Your task to perform on an android device: turn off sleep mode Image 0: 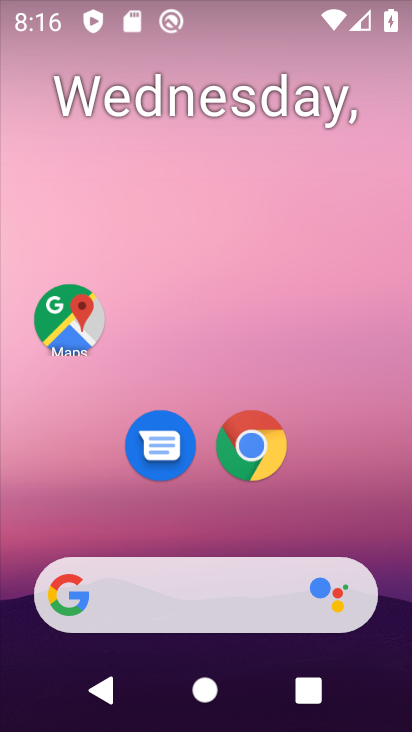
Step 0: drag from (238, 713) to (250, 33)
Your task to perform on an android device: turn off sleep mode Image 1: 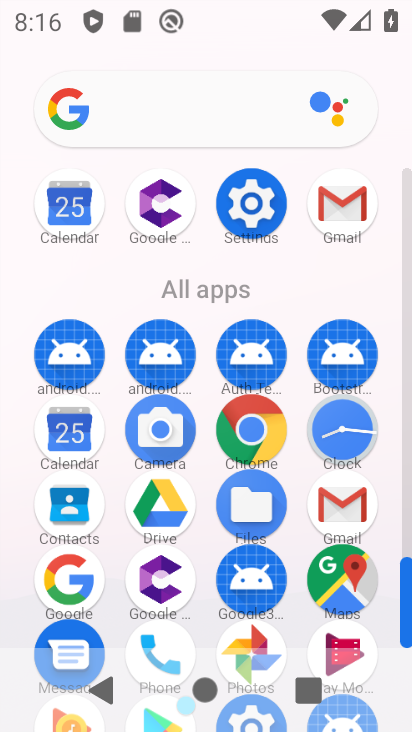
Step 1: click (234, 197)
Your task to perform on an android device: turn off sleep mode Image 2: 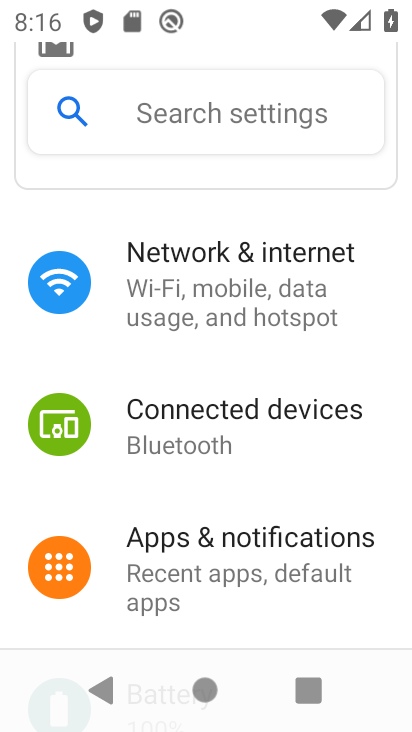
Step 2: drag from (235, 619) to (229, 122)
Your task to perform on an android device: turn off sleep mode Image 3: 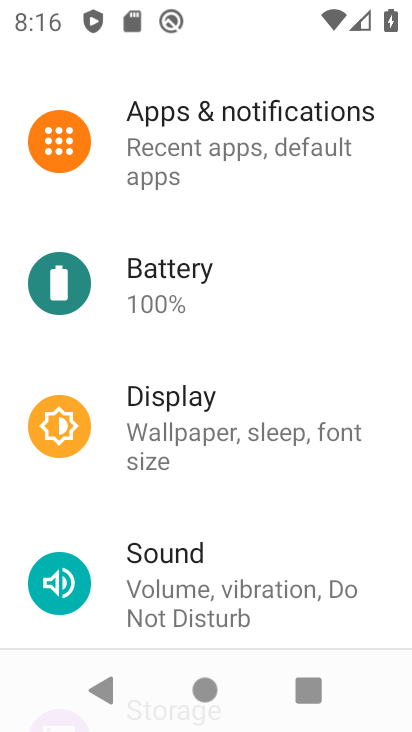
Step 3: drag from (228, 593) to (212, 155)
Your task to perform on an android device: turn off sleep mode Image 4: 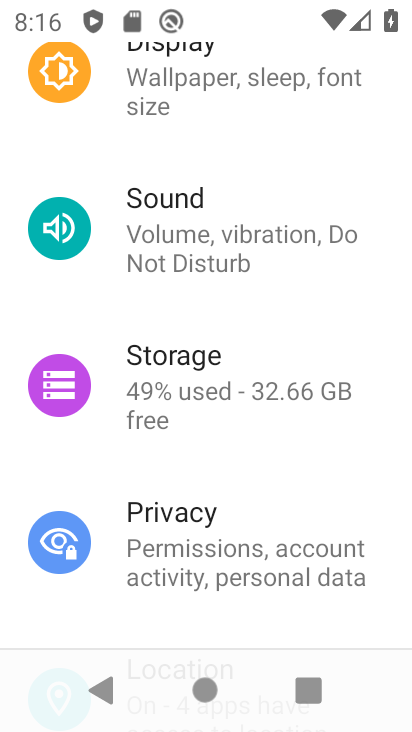
Step 4: drag from (223, 578) to (219, 146)
Your task to perform on an android device: turn off sleep mode Image 5: 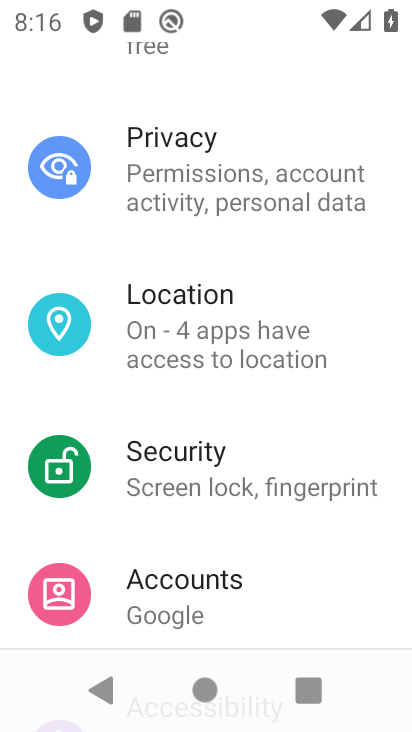
Step 5: drag from (215, 628) to (218, 129)
Your task to perform on an android device: turn off sleep mode Image 6: 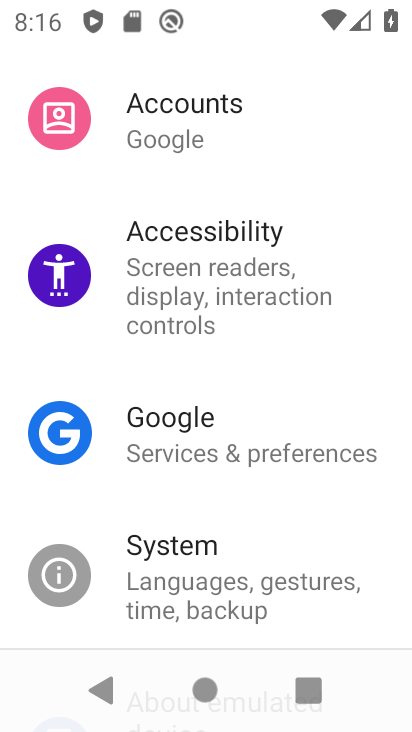
Step 6: drag from (209, 617) to (200, 169)
Your task to perform on an android device: turn off sleep mode Image 7: 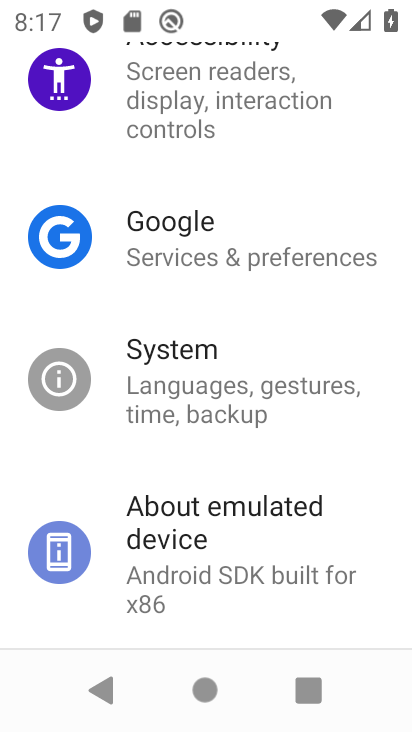
Step 7: drag from (236, 99) to (209, 514)
Your task to perform on an android device: turn off sleep mode Image 8: 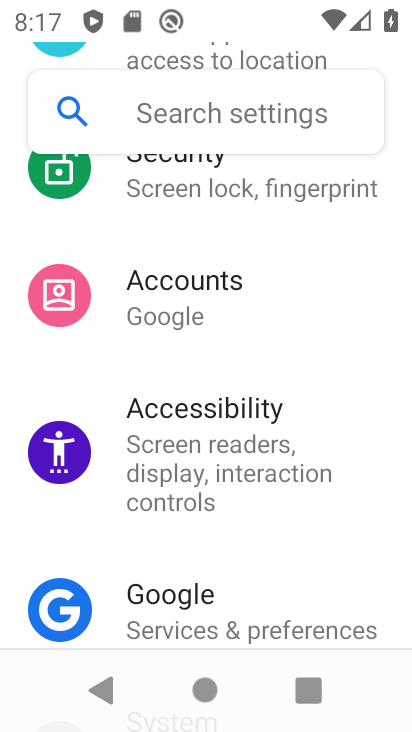
Step 8: drag from (251, 216) to (249, 535)
Your task to perform on an android device: turn off sleep mode Image 9: 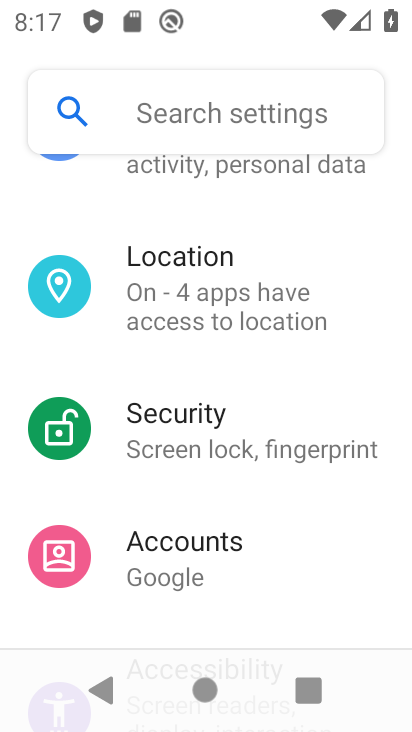
Step 9: drag from (247, 227) to (224, 622)
Your task to perform on an android device: turn off sleep mode Image 10: 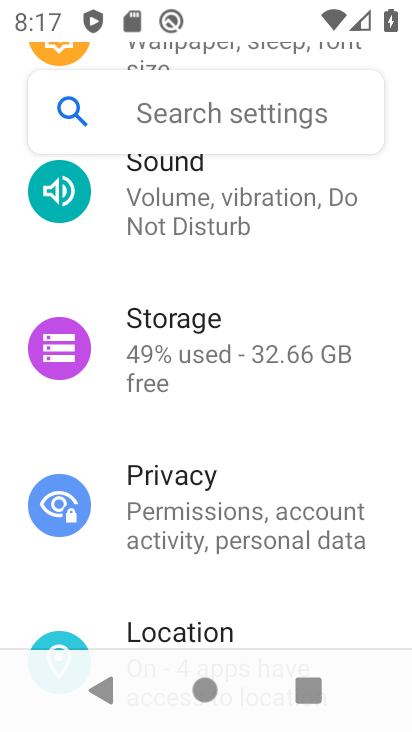
Step 10: drag from (195, 186) to (199, 589)
Your task to perform on an android device: turn off sleep mode Image 11: 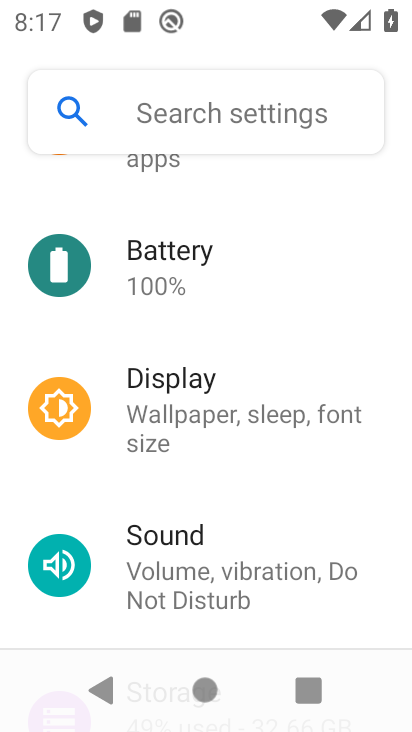
Step 11: click (163, 423)
Your task to perform on an android device: turn off sleep mode Image 12: 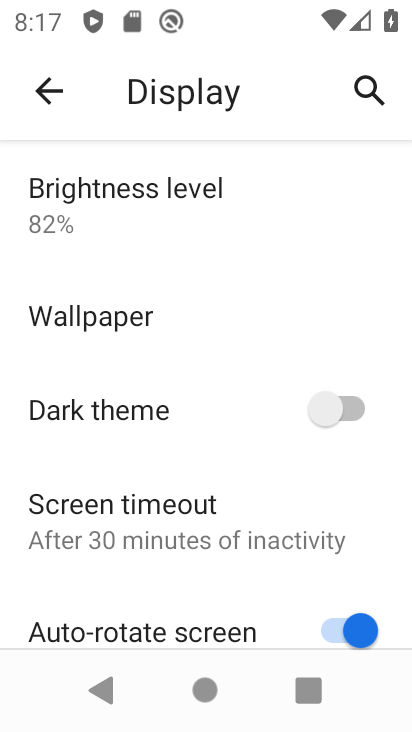
Step 12: task complete